Your task to perform on an android device: Show me popular games on the Play Store Image 0: 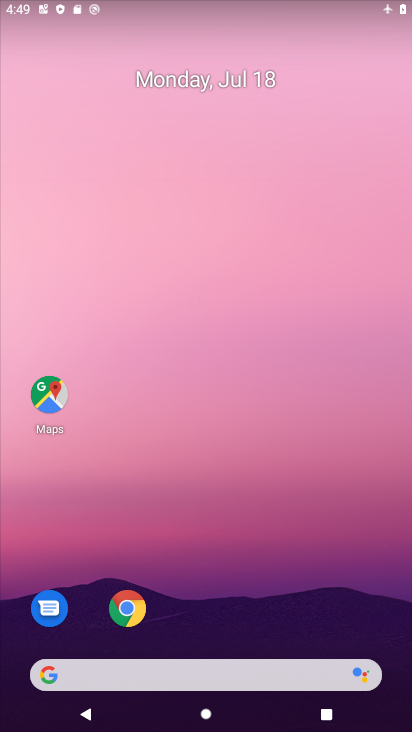
Step 0: drag from (271, 561) to (274, 129)
Your task to perform on an android device: Show me popular games on the Play Store Image 1: 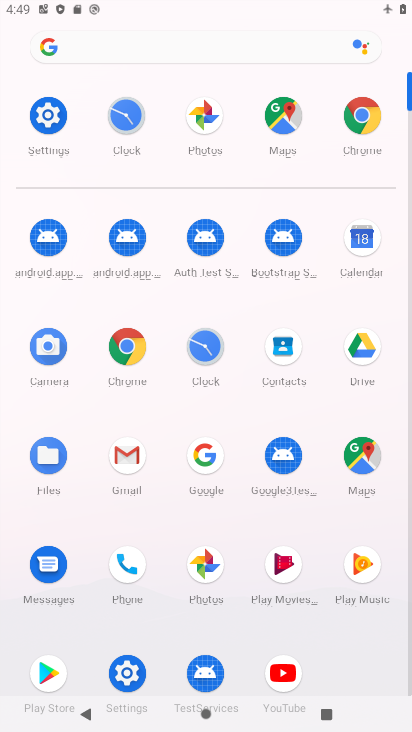
Step 1: click (45, 666)
Your task to perform on an android device: Show me popular games on the Play Store Image 2: 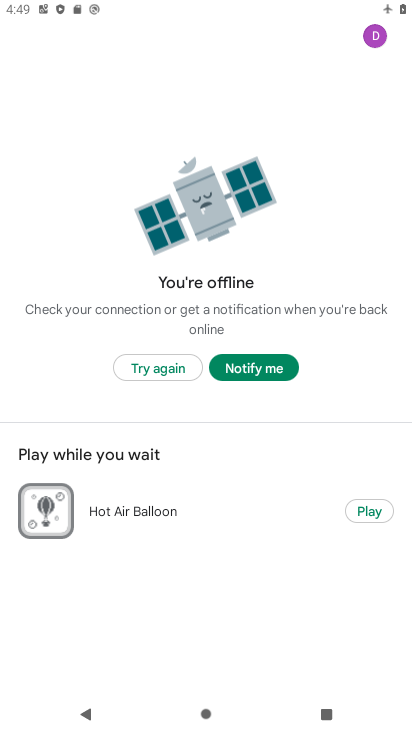
Step 2: task complete